Your task to perform on an android device: Do I have any events tomorrow? Image 0: 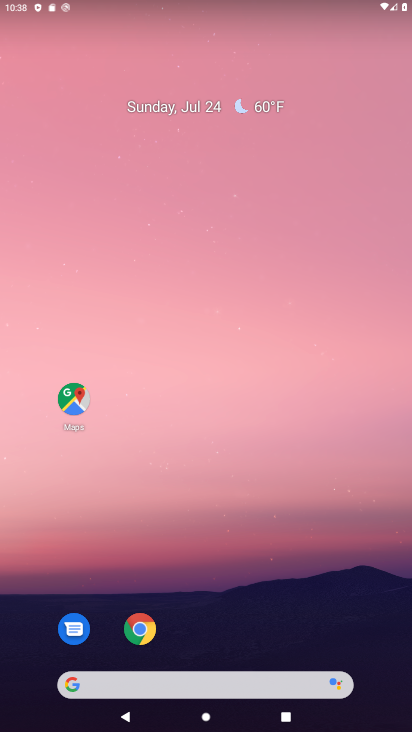
Step 0: drag from (275, 664) to (263, 134)
Your task to perform on an android device: Do I have any events tomorrow? Image 1: 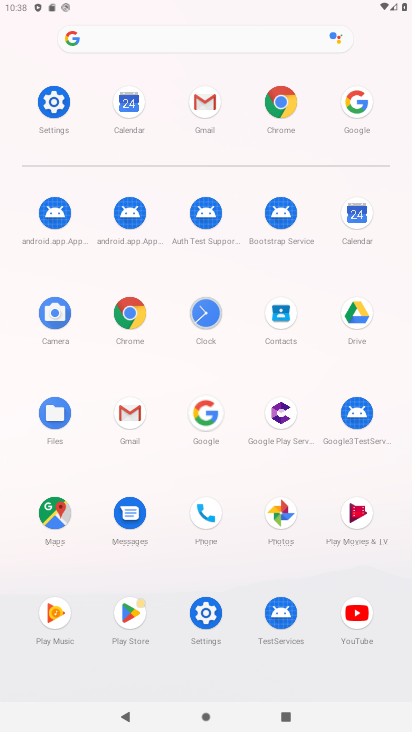
Step 1: click (356, 226)
Your task to perform on an android device: Do I have any events tomorrow? Image 2: 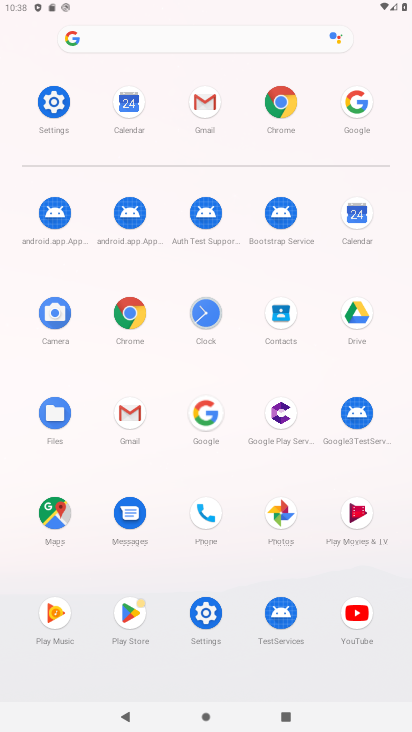
Step 2: click (356, 226)
Your task to perform on an android device: Do I have any events tomorrow? Image 3: 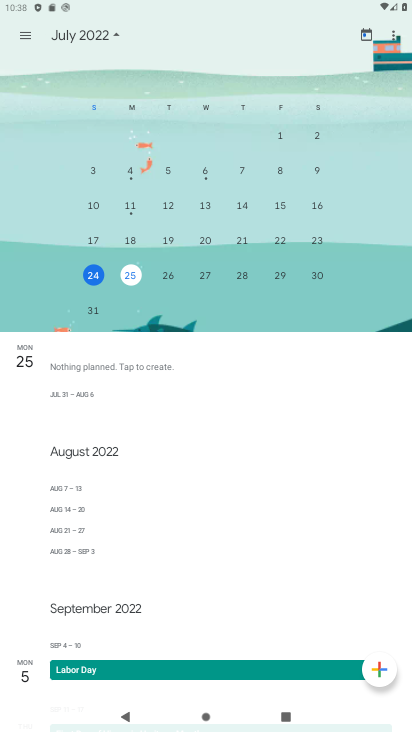
Step 3: click (174, 271)
Your task to perform on an android device: Do I have any events tomorrow? Image 4: 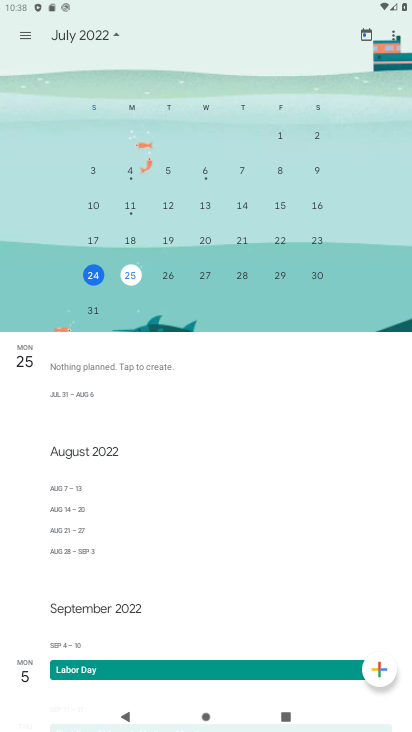
Step 4: click (171, 269)
Your task to perform on an android device: Do I have any events tomorrow? Image 5: 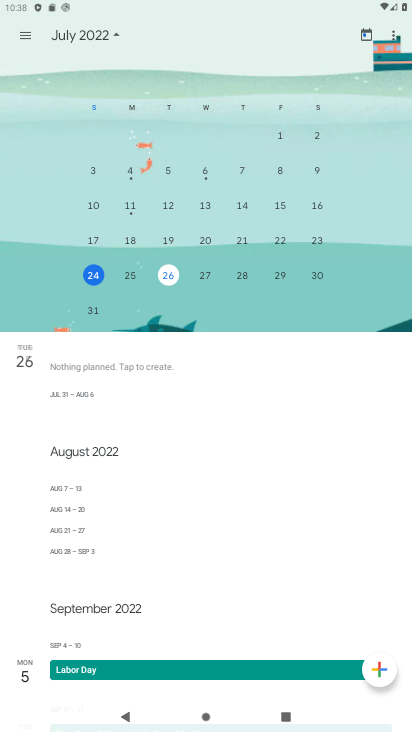
Step 5: click (171, 269)
Your task to perform on an android device: Do I have any events tomorrow? Image 6: 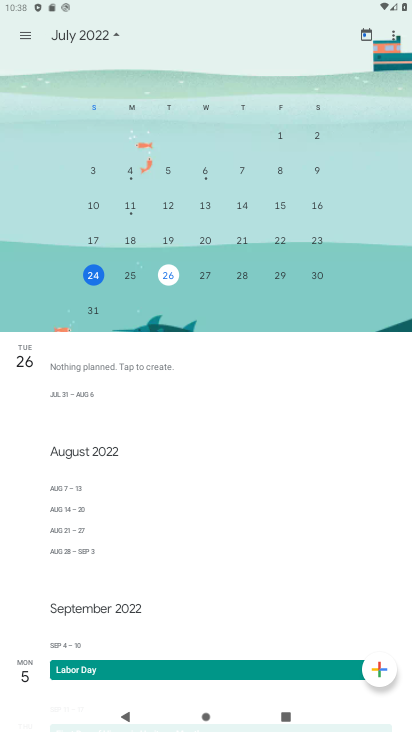
Step 6: click (168, 268)
Your task to perform on an android device: Do I have any events tomorrow? Image 7: 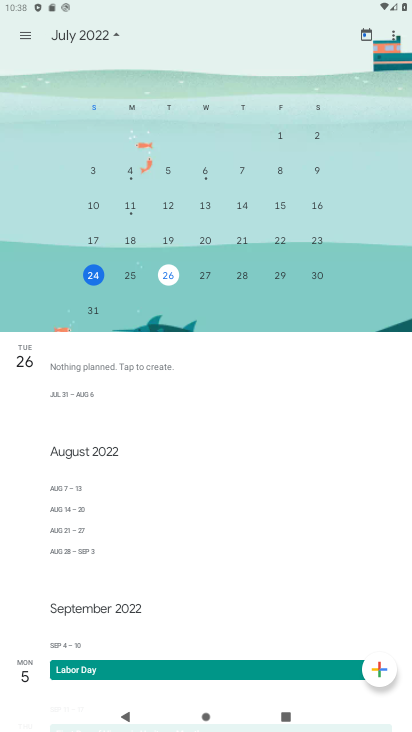
Step 7: task complete